Your task to perform on an android device: Toggle the flashlight Image 0: 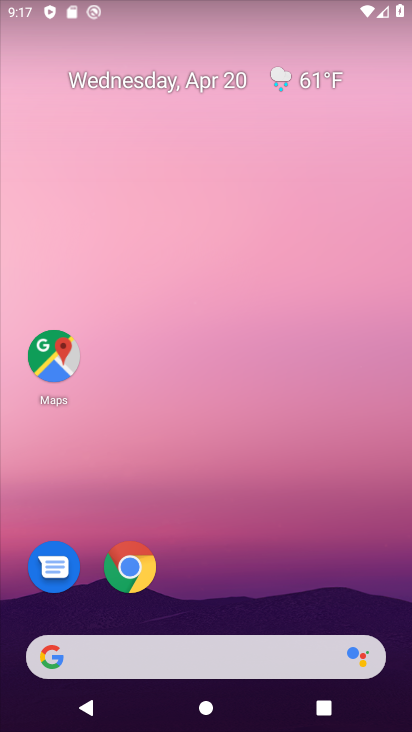
Step 0: drag from (233, 600) to (265, 125)
Your task to perform on an android device: Toggle the flashlight Image 1: 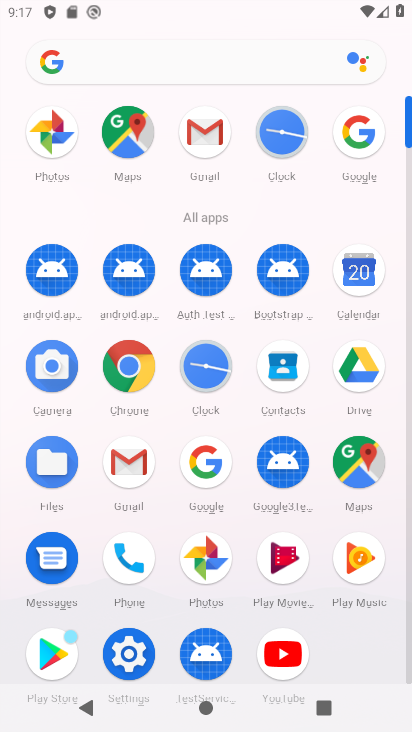
Step 1: click (135, 628)
Your task to perform on an android device: Toggle the flashlight Image 2: 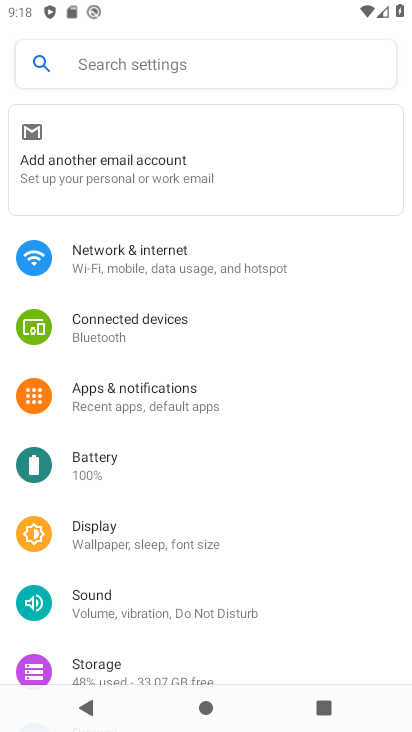
Step 2: task complete